Your task to perform on an android device: toggle airplane mode Image 0: 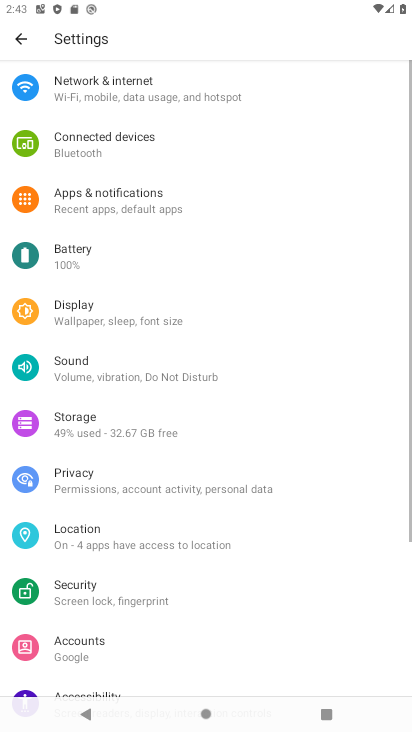
Step 0: click (108, 81)
Your task to perform on an android device: toggle airplane mode Image 1: 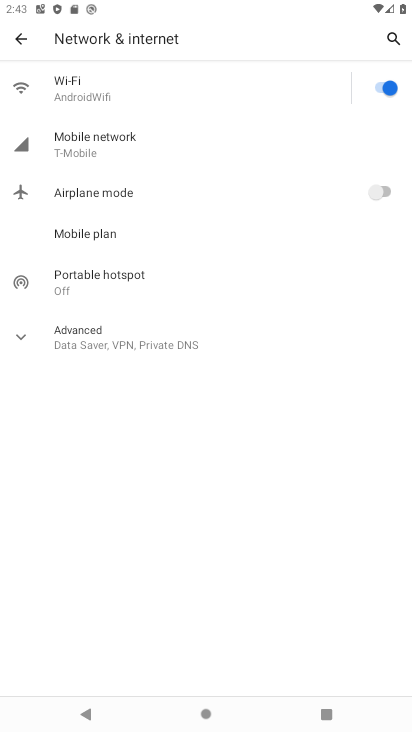
Step 1: click (376, 190)
Your task to perform on an android device: toggle airplane mode Image 2: 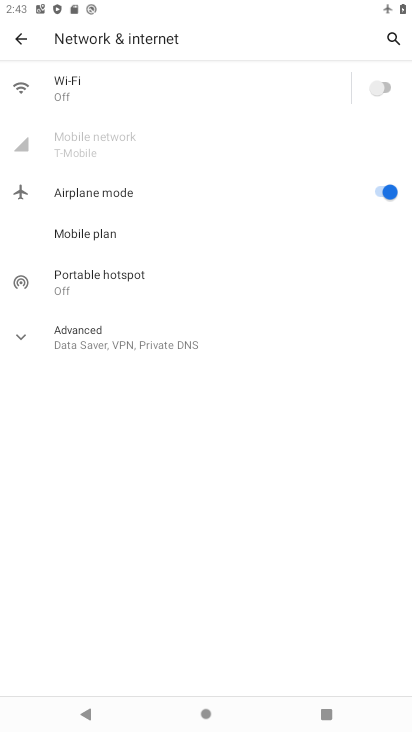
Step 2: task complete